Your task to perform on an android device: Clear the shopping cart on amazon. Add "acer nitro" to the cart on amazon Image 0: 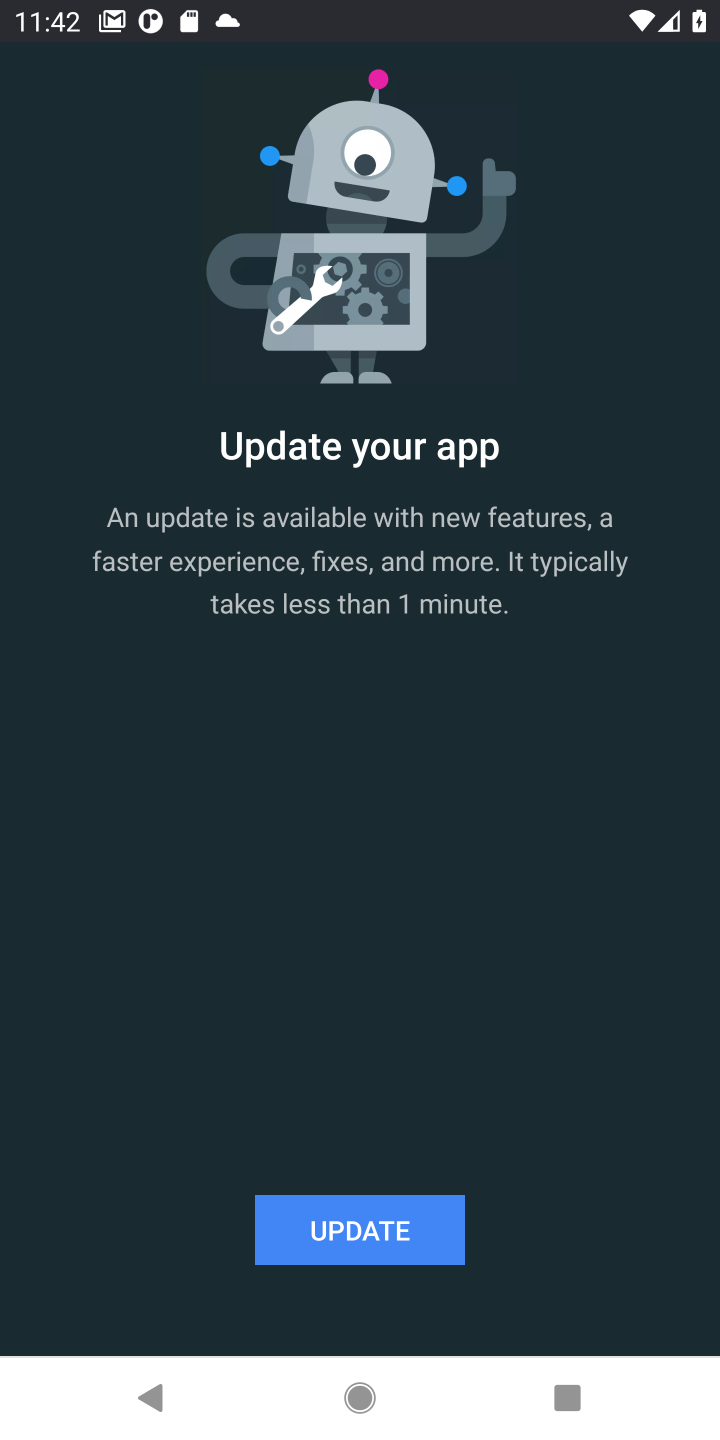
Step 0: press home button
Your task to perform on an android device: Clear the shopping cart on amazon. Add "acer nitro" to the cart on amazon Image 1: 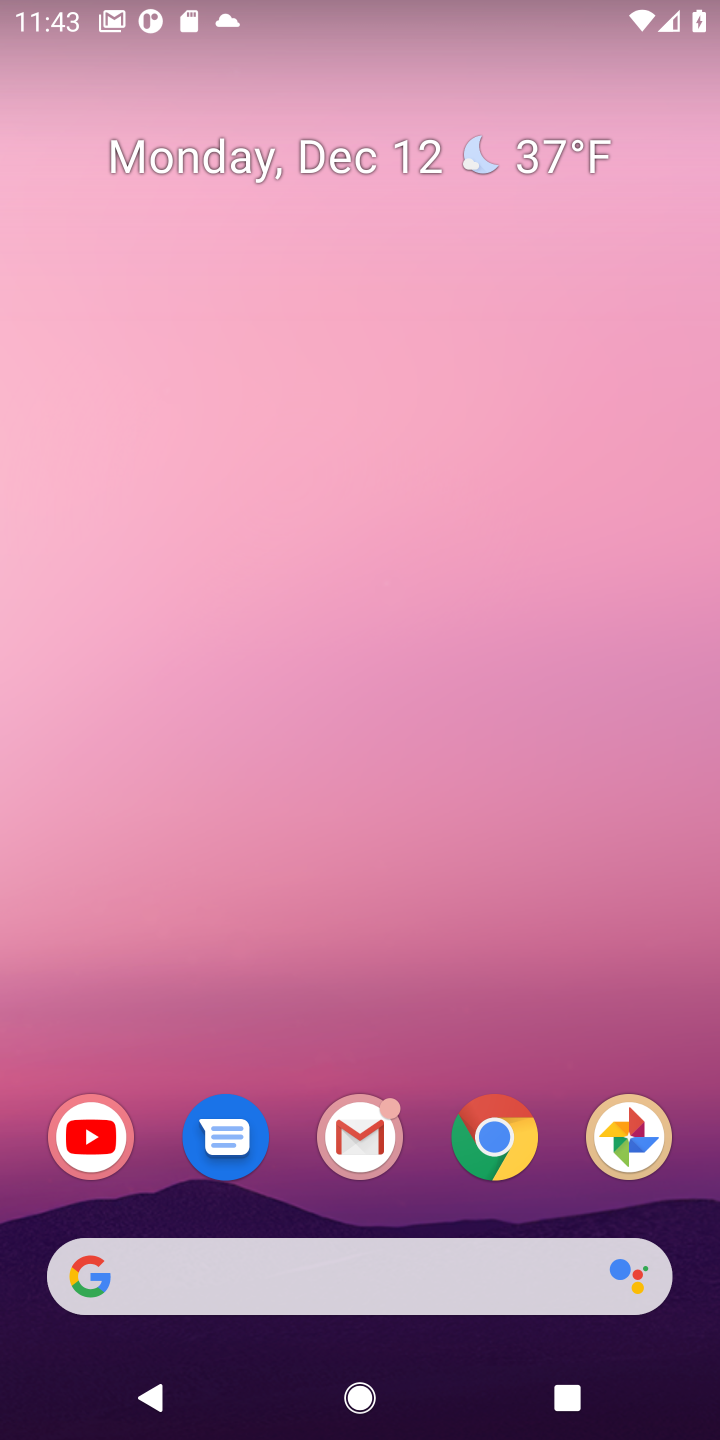
Step 1: click (498, 1274)
Your task to perform on an android device: Clear the shopping cart on amazon. Add "acer nitro" to the cart on amazon Image 2: 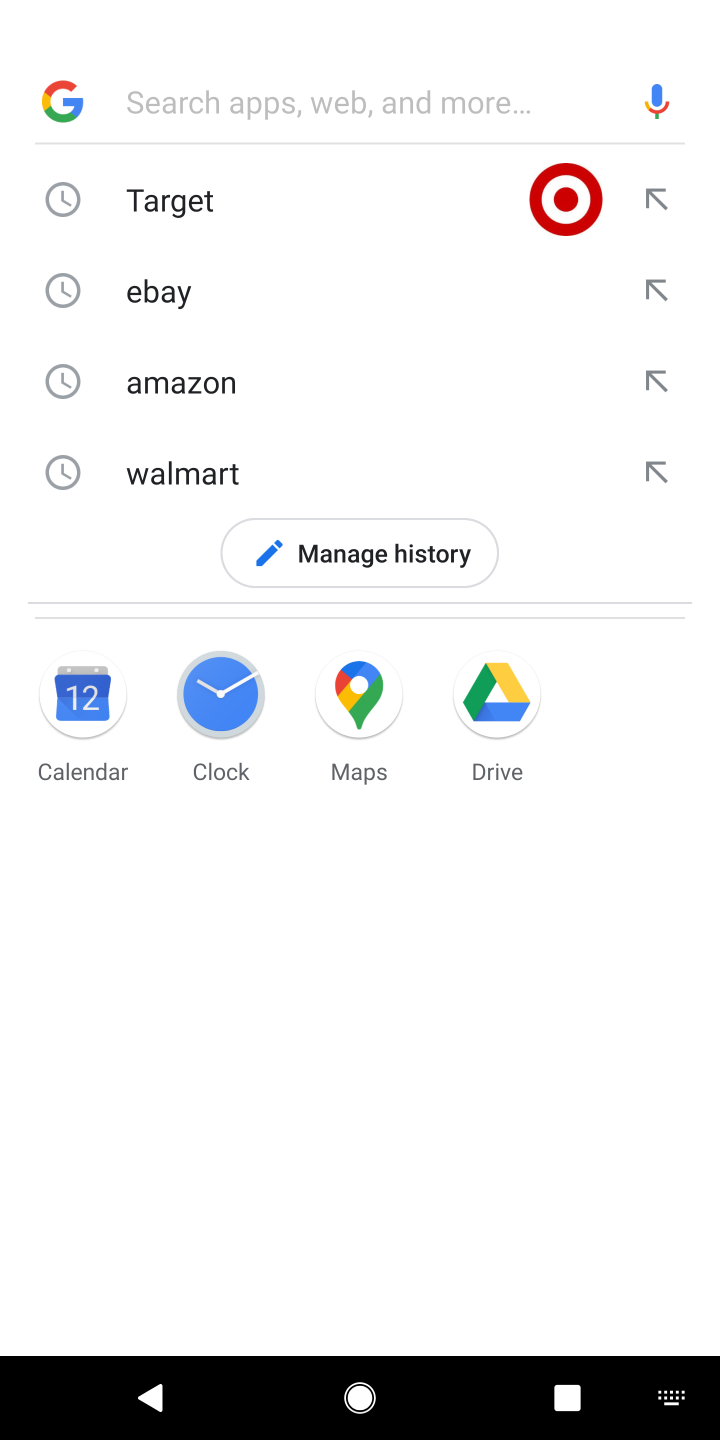
Step 2: click (257, 398)
Your task to perform on an android device: Clear the shopping cart on amazon. Add "acer nitro" to the cart on amazon Image 3: 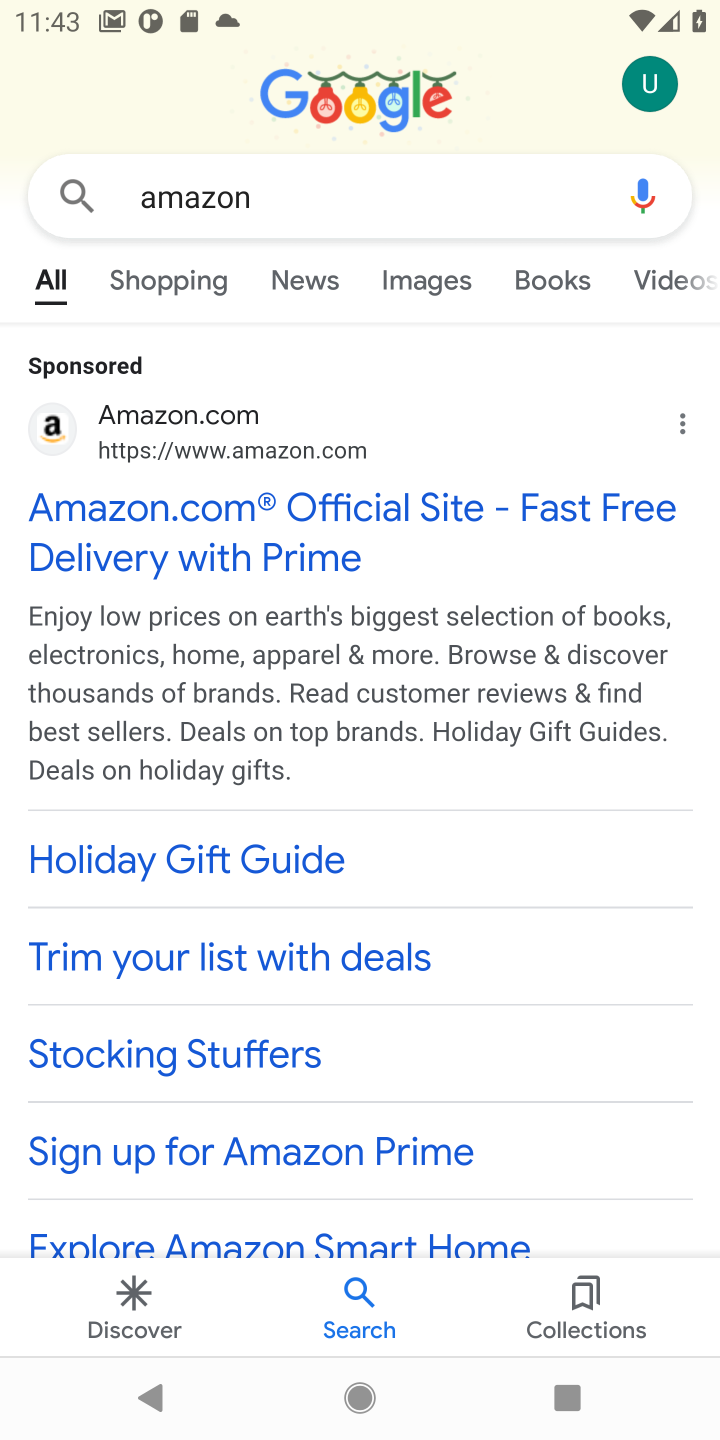
Step 3: click (289, 553)
Your task to perform on an android device: Clear the shopping cart on amazon. Add "acer nitro" to the cart on amazon Image 4: 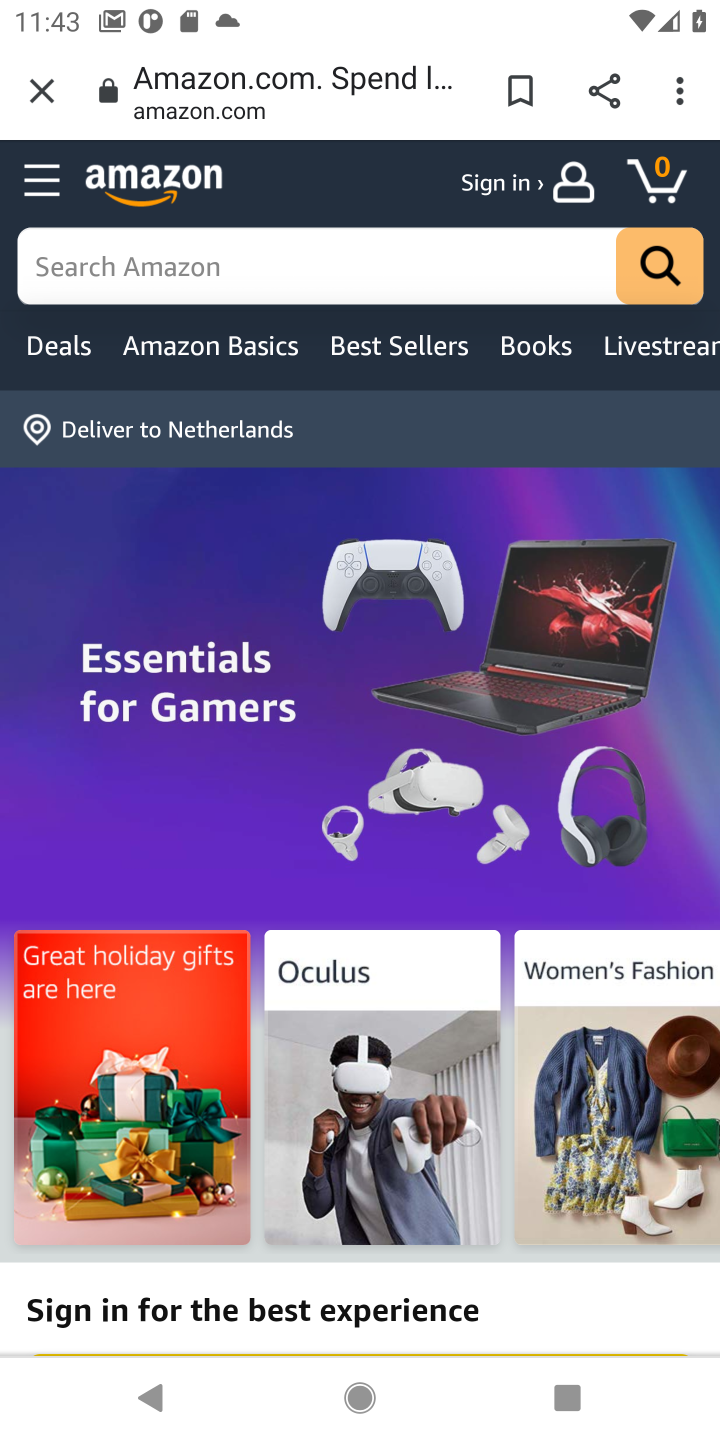
Step 4: click (418, 286)
Your task to perform on an android device: Clear the shopping cart on amazon. Add "acer nitro" to the cart on amazon Image 5: 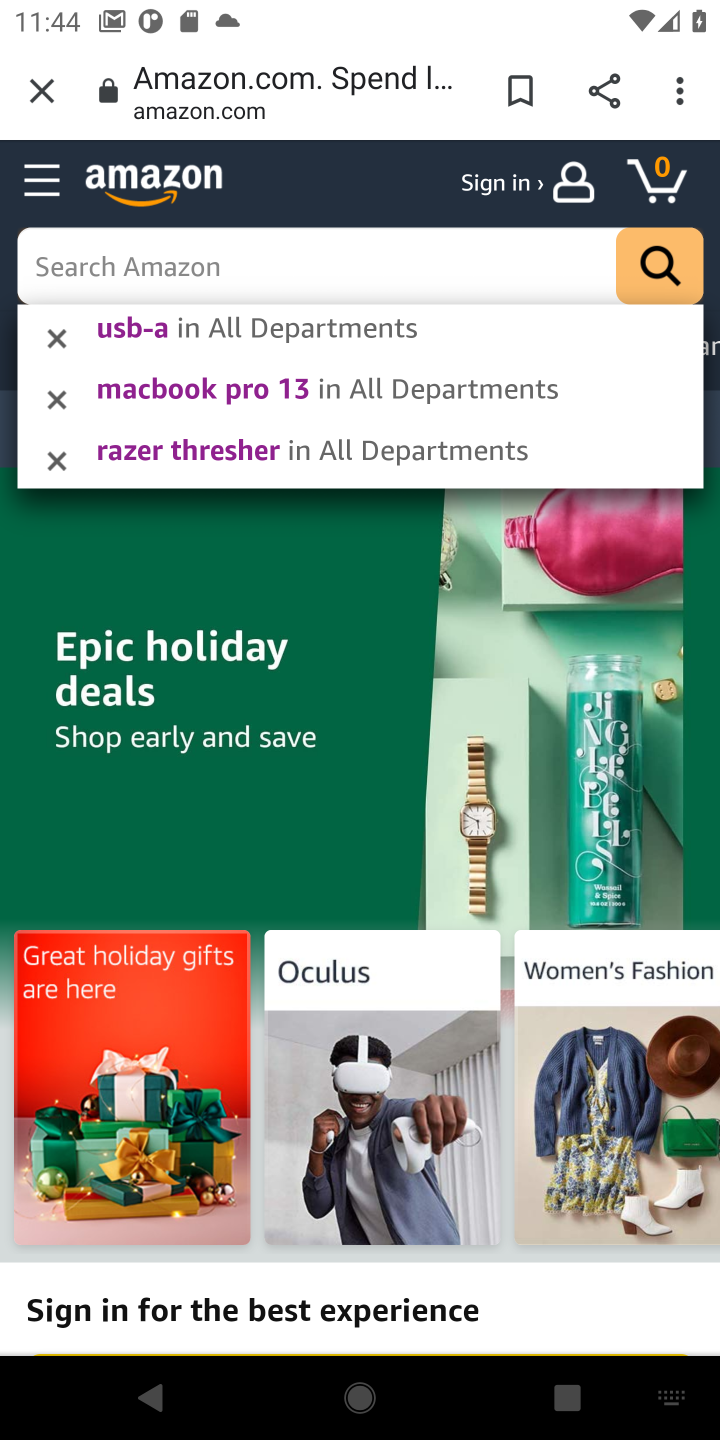
Step 5: type "acer nitro"
Your task to perform on an android device: Clear the shopping cart on amazon. Add "acer nitro" to the cart on amazon Image 6: 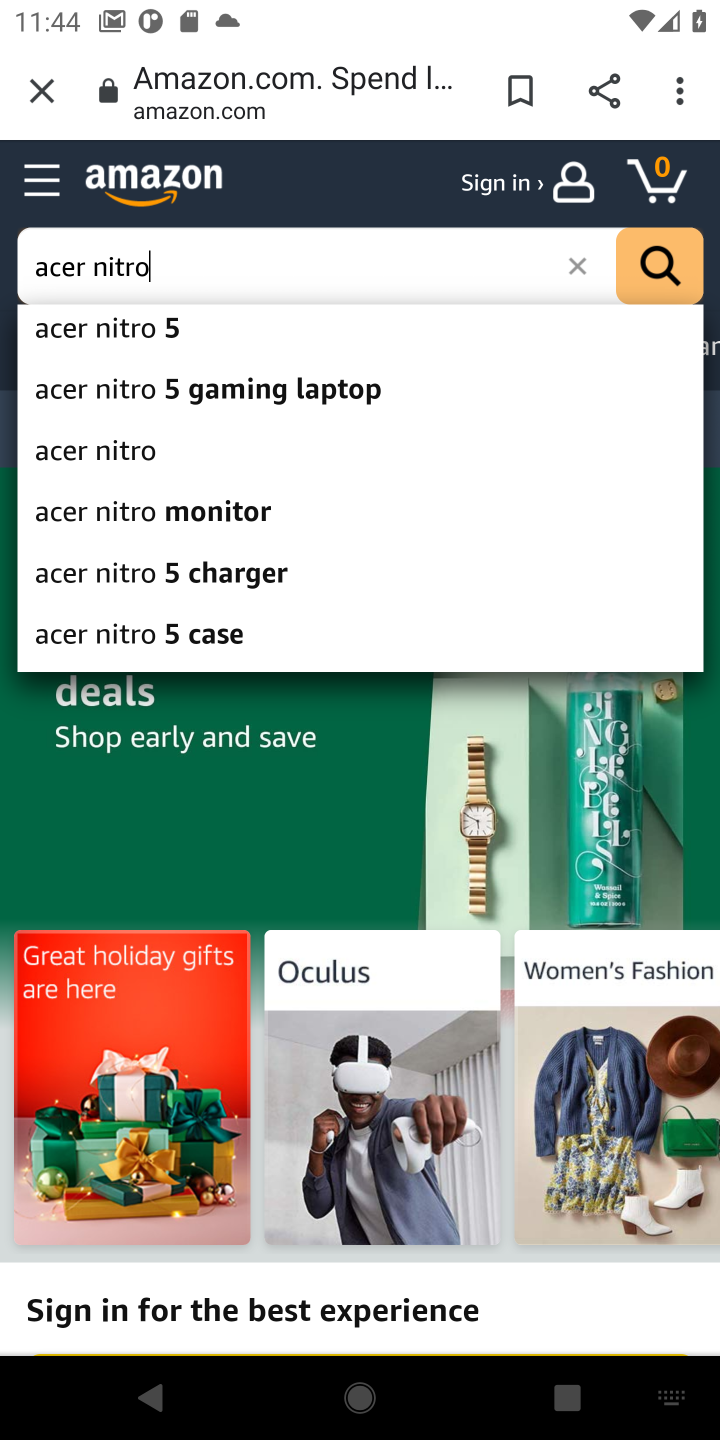
Step 6: click (641, 256)
Your task to perform on an android device: Clear the shopping cart on amazon. Add "acer nitro" to the cart on amazon Image 7: 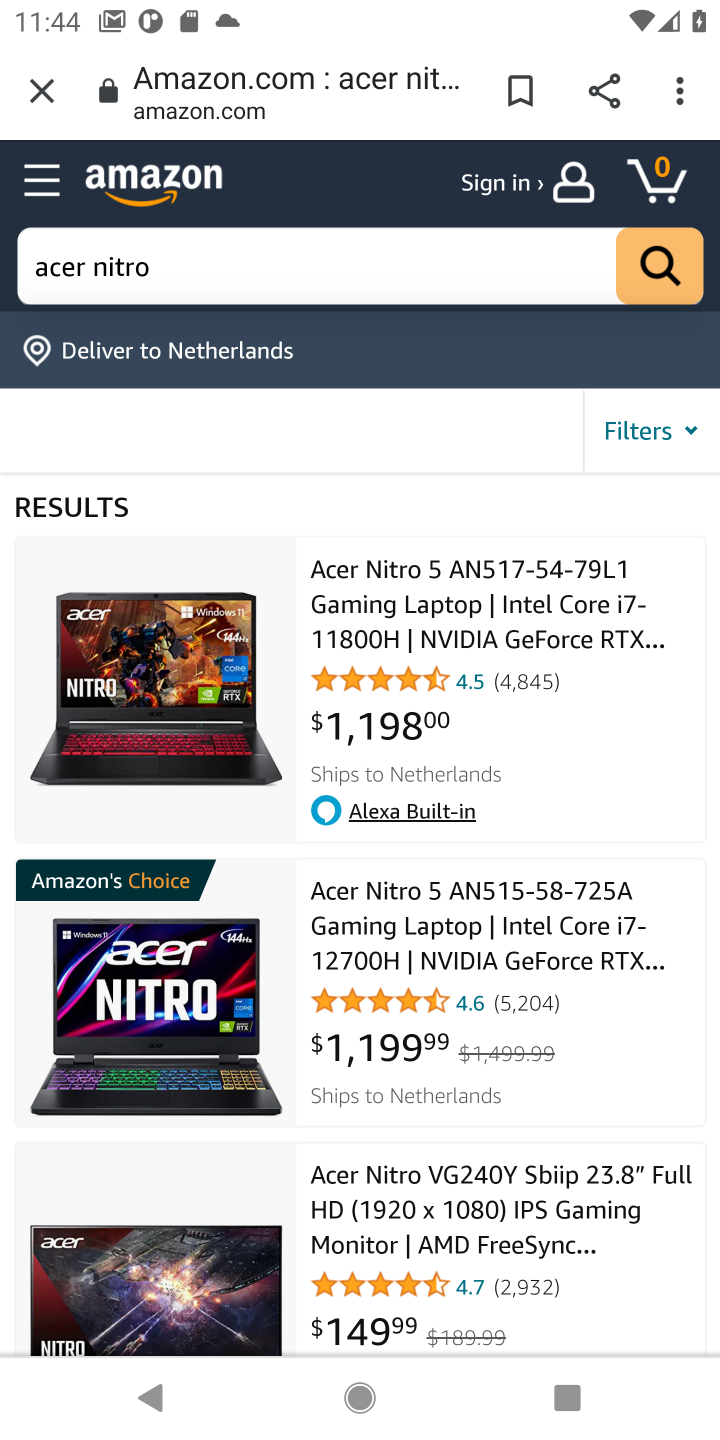
Step 7: click (470, 655)
Your task to perform on an android device: Clear the shopping cart on amazon. Add "acer nitro" to the cart on amazon Image 8: 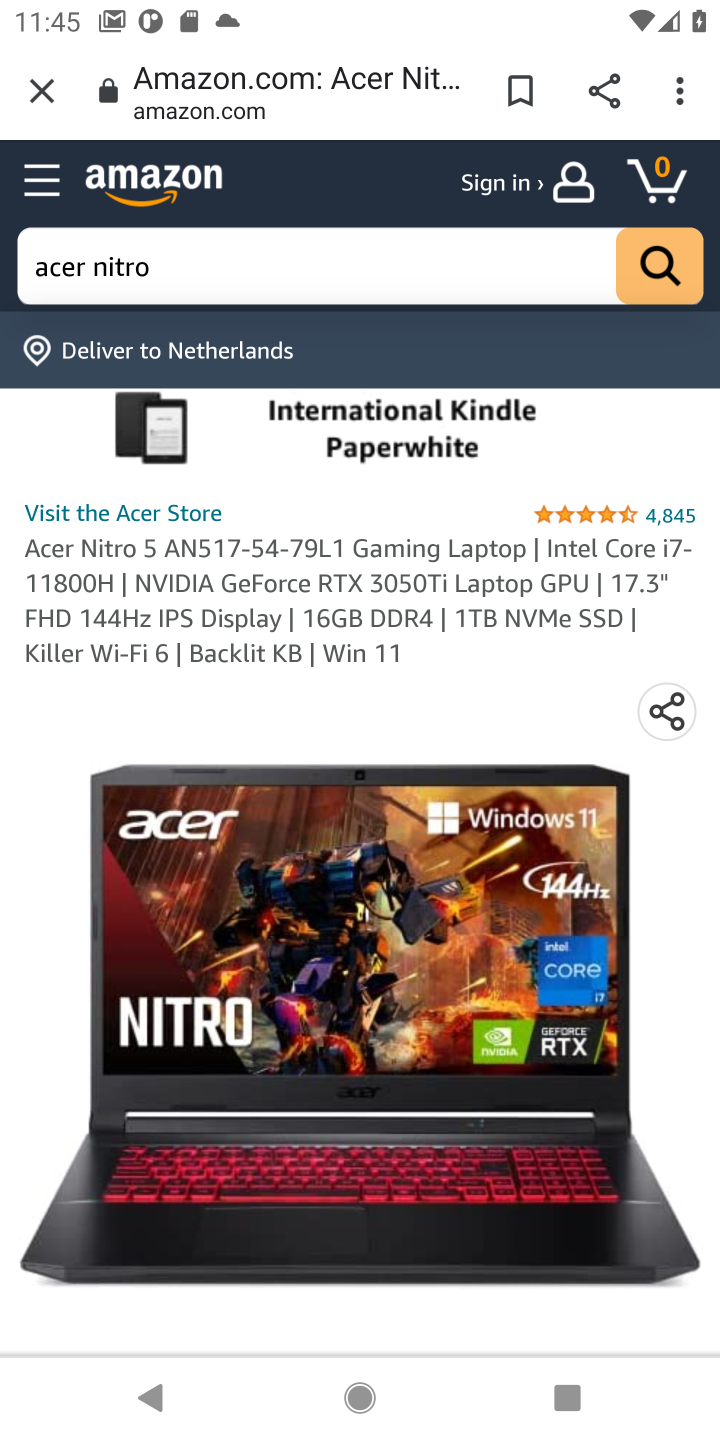
Step 8: drag from (393, 1305) to (404, 705)
Your task to perform on an android device: Clear the shopping cart on amazon. Add "acer nitro" to the cart on amazon Image 9: 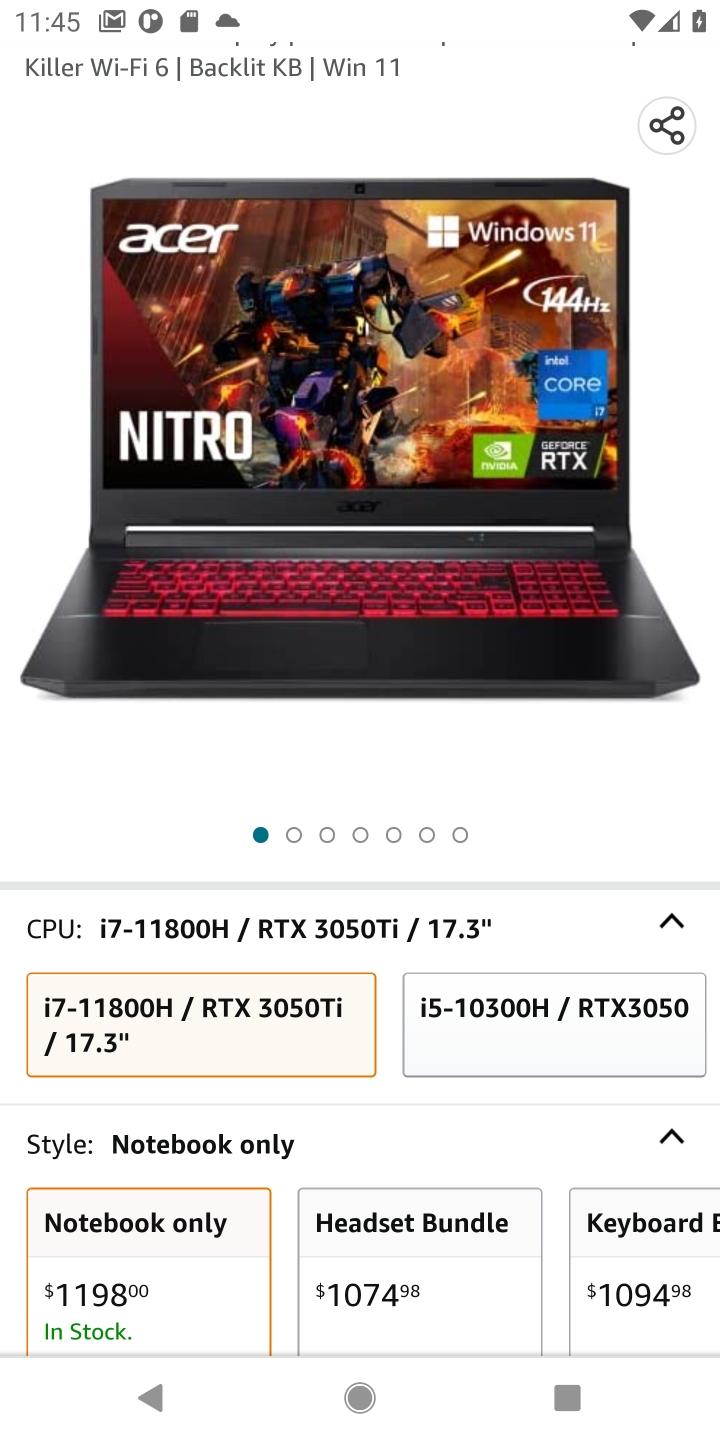
Step 9: click (407, 722)
Your task to perform on an android device: Clear the shopping cart on amazon. Add "acer nitro" to the cart on amazon Image 10: 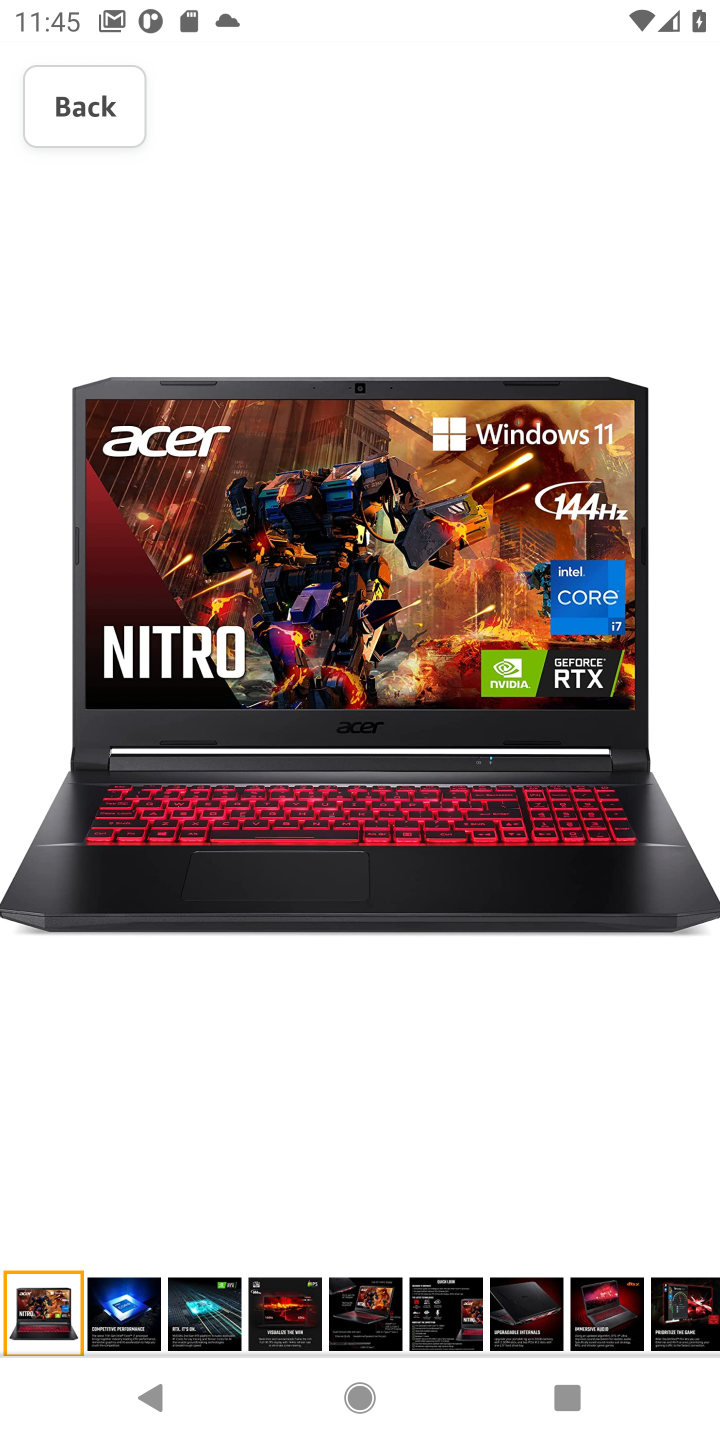
Step 10: task complete